Your task to perform on an android device: delete browsing data in the chrome app Image 0: 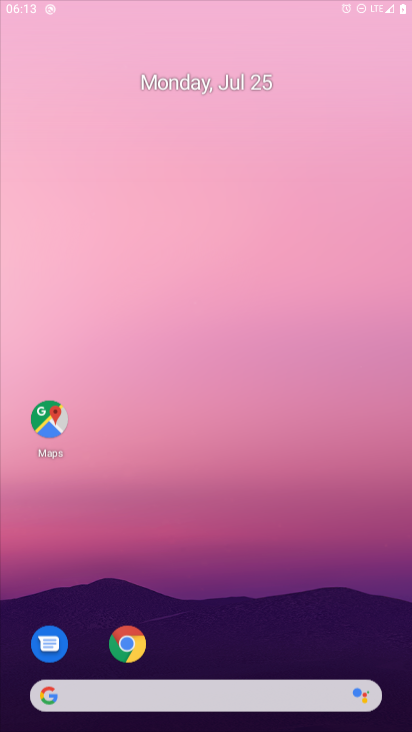
Step 0: press home button
Your task to perform on an android device: delete browsing data in the chrome app Image 1: 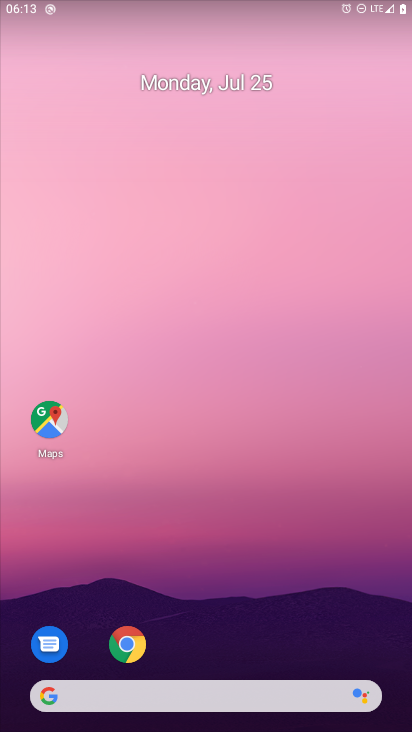
Step 1: drag from (251, 644) to (167, 146)
Your task to perform on an android device: delete browsing data in the chrome app Image 2: 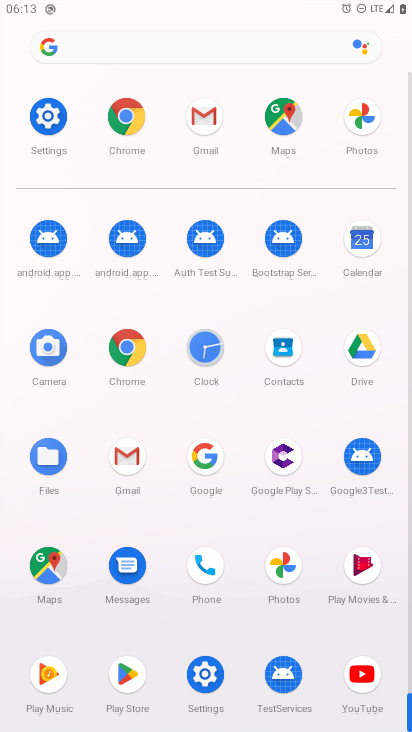
Step 2: click (121, 123)
Your task to perform on an android device: delete browsing data in the chrome app Image 3: 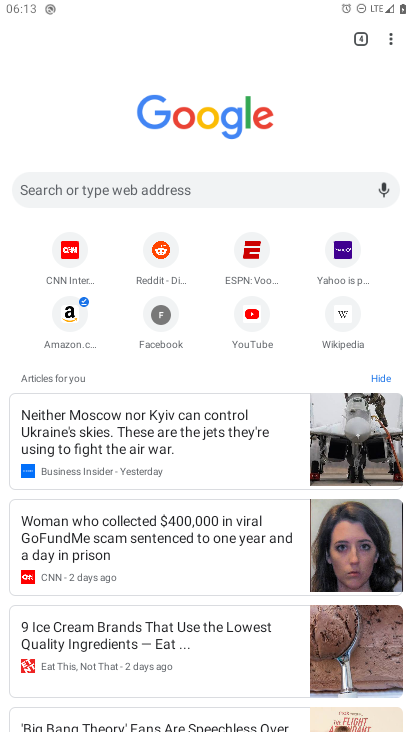
Step 3: drag from (397, 37) to (268, 325)
Your task to perform on an android device: delete browsing data in the chrome app Image 4: 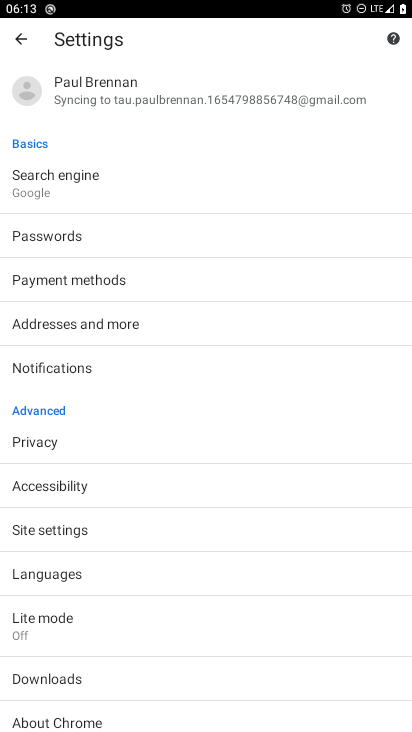
Step 4: click (36, 440)
Your task to perform on an android device: delete browsing data in the chrome app Image 5: 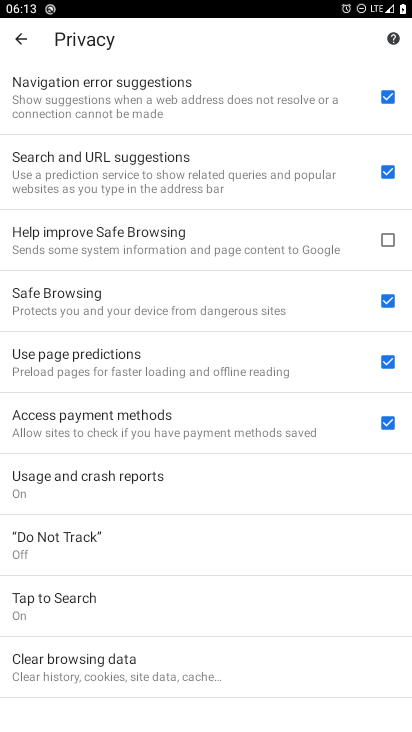
Step 5: drag from (264, 661) to (228, 151)
Your task to perform on an android device: delete browsing data in the chrome app Image 6: 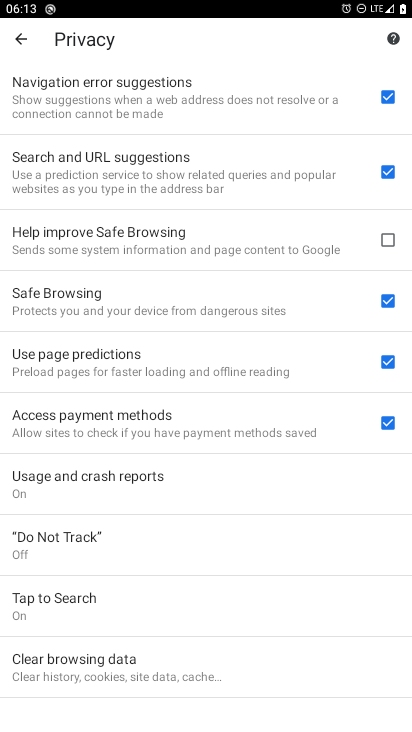
Step 6: click (77, 664)
Your task to perform on an android device: delete browsing data in the chrome app Image 7: 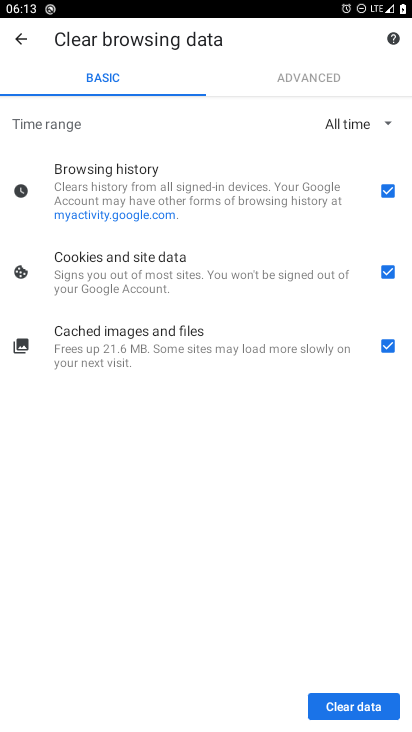
Step 7: click (352, 704)
Your task to perform on an android device: delete browsing data in the chrome app Image 8: 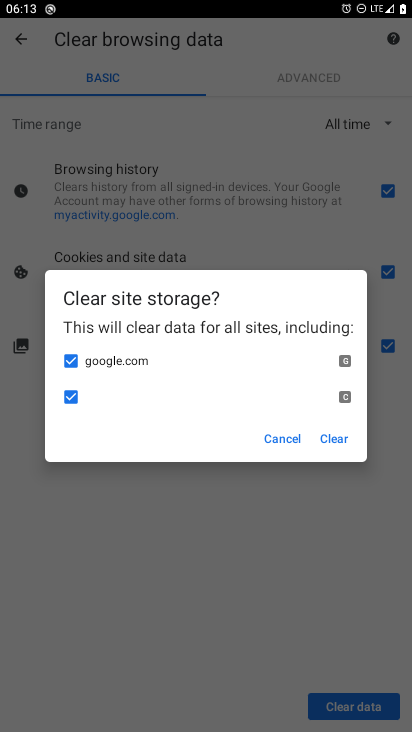
Step 8: click (338, 441)
Your task to perform on an android device: delete browsing data in the chrome app Image 9: 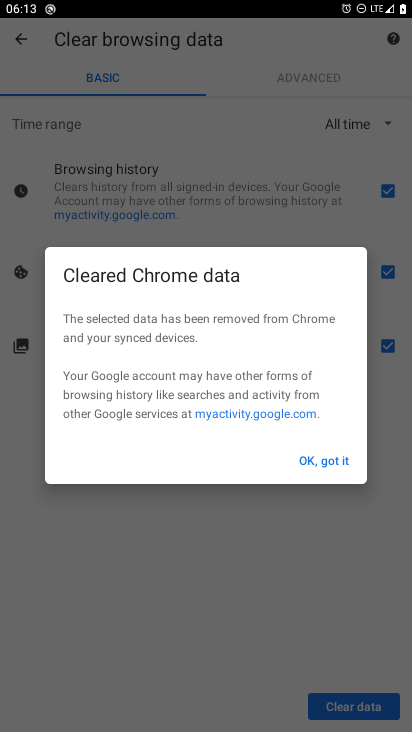
Step 9: click (329, 455)
Your task to perform on an android device: delete browsing data in the chrome app Image 10: 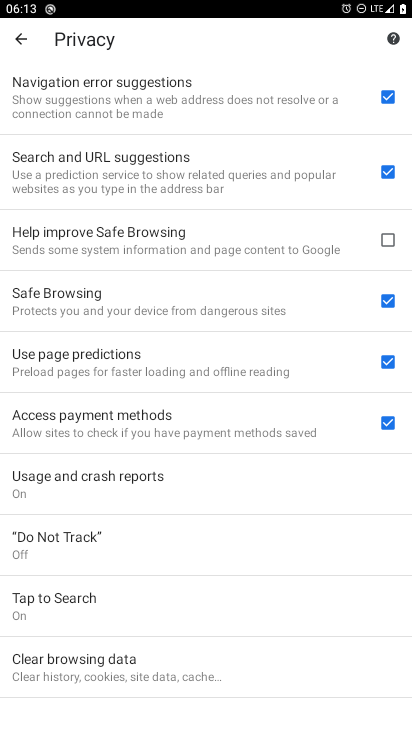
Step 10: task complete